Your task to perform on an android device: Open the map Image 0: 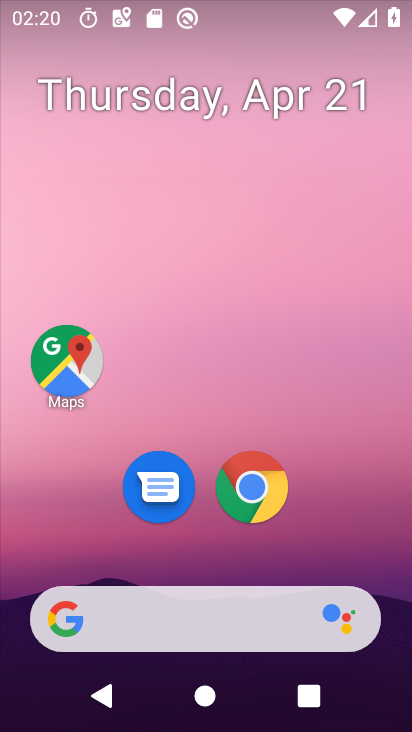
Step 0: drag from (185, 538) to (309, 44)
Your task to perform on an android device: Open the map Image 1: 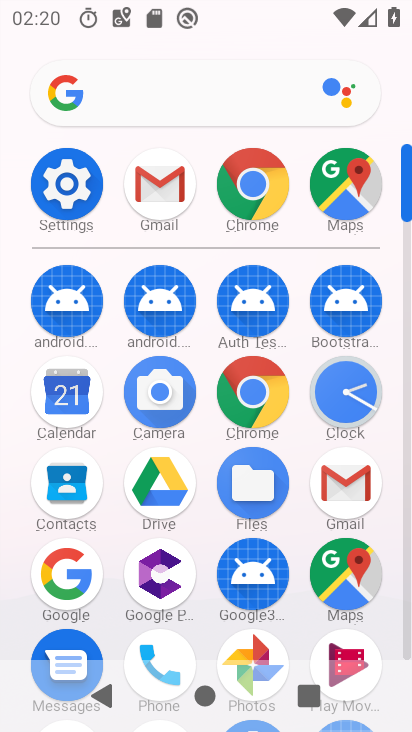
Step 1: click (338, 556)
Your task to perform on an android device: Open the map Image 2: 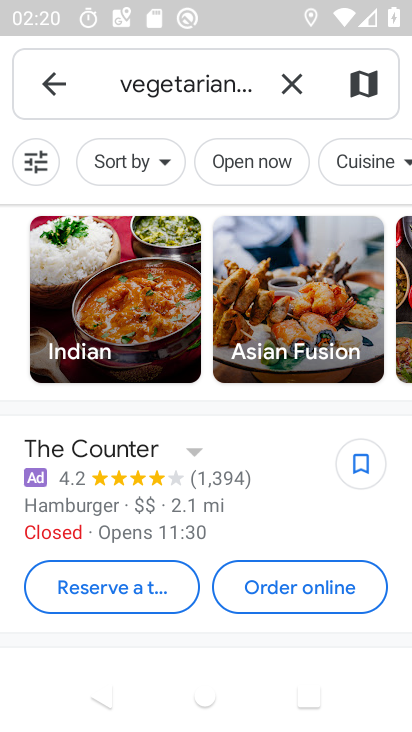
Step 2: task complete